Your task to perform on an android device: open a new tab in the chrome app Image 0: 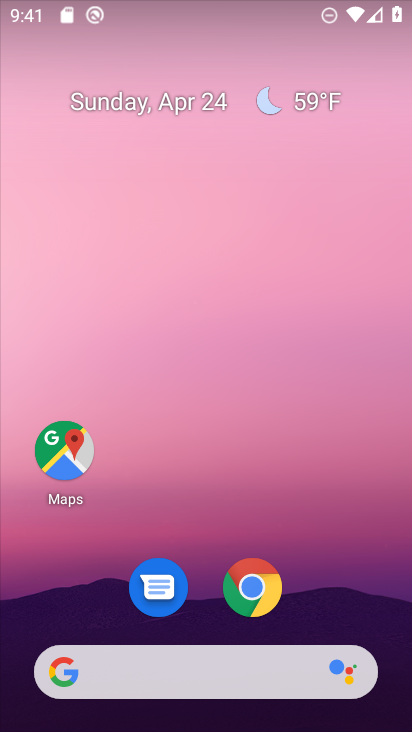
Step 0: click (251, 585)
Your task to perform on an android device: open a new tab in the chrome app Image 1: 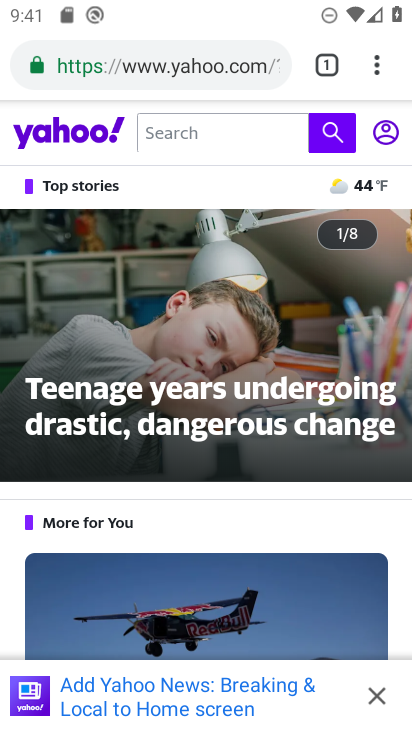
Step 1: click (376, 63)
Your task to perform on an android device: open a new tab in the chrome app Image 2: 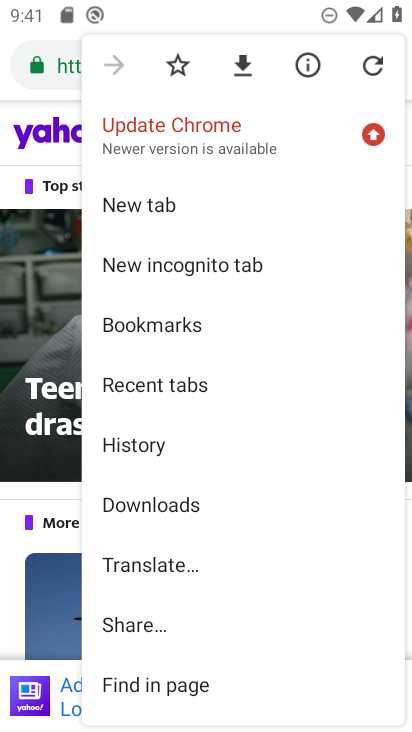
Step 2: click (172, 214)
Your task to perform on an android device: open a new tab in the chrome app Image 3: 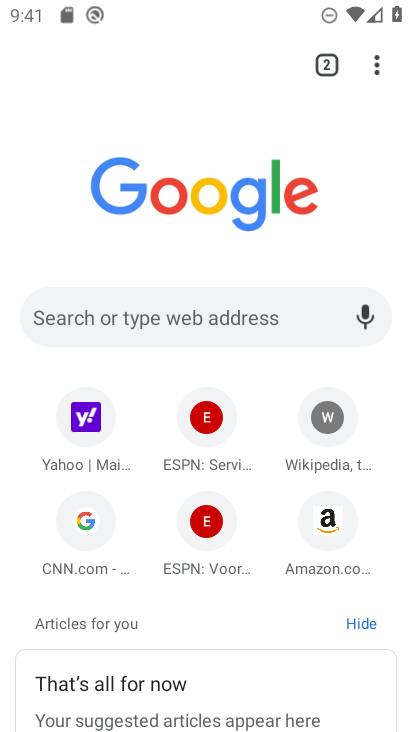
Step 3: task complete